Your task to perform on an android device: make emails show in primary in the gmail app Image 0: 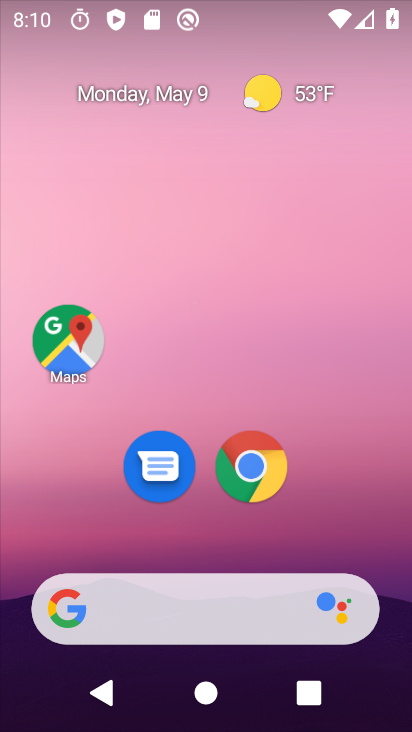
Step 0: drag from (323, 511) to (251, 85)
Your task to perform on an android device: make emails show in primary in the gmail app Image 1: 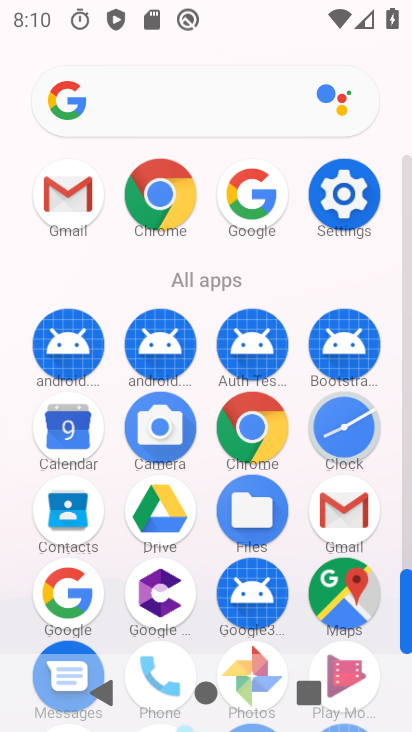
Step 1: click (67, 198)
Your task to perform on an android device: make emails show in primary in the gmail app Image 2: 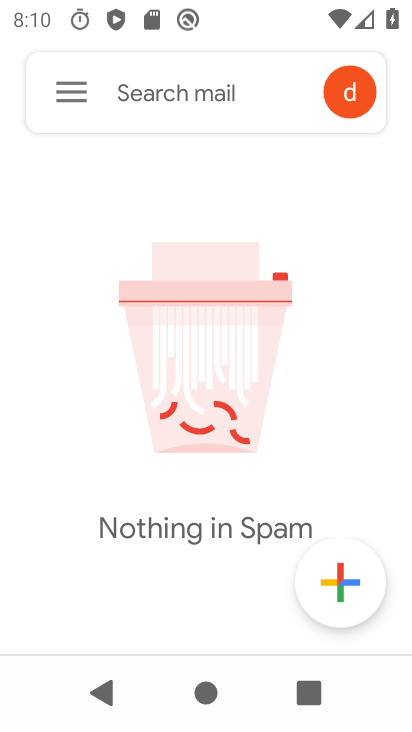
Step 2: click (77, 98)
Your task to perform on an android device: make emails show in primary in the gmail app Image 3: 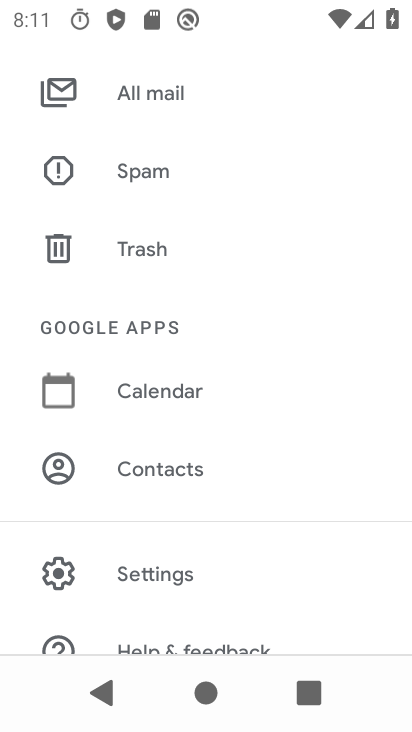
Step 3: click (135, 571)
Your task to perform on an android device: make emails show in primary in the gmail app Image 4: 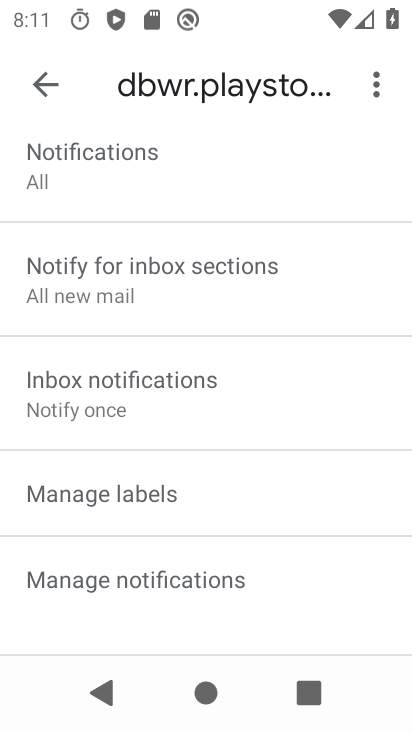
Step 4: drag from (202, 202) to (178, 472)
Your task to perform on an android device: make emails show in primary in the gmail app Image 5: 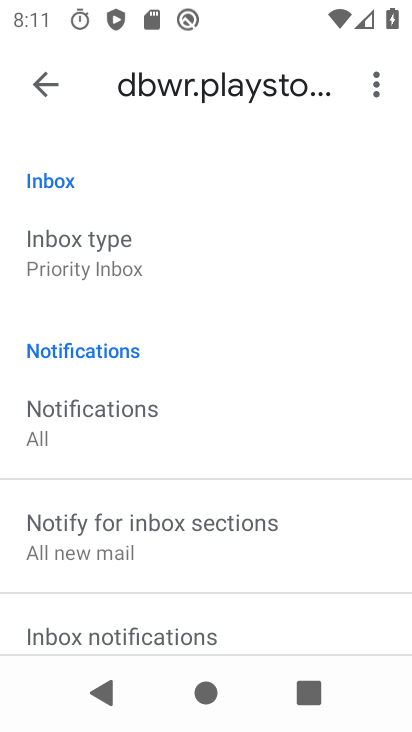
Step 5: drag from (160, 266) to (176, 486)
Your task to perform on an android device: make emails show in primary in the gmail app Image 6: 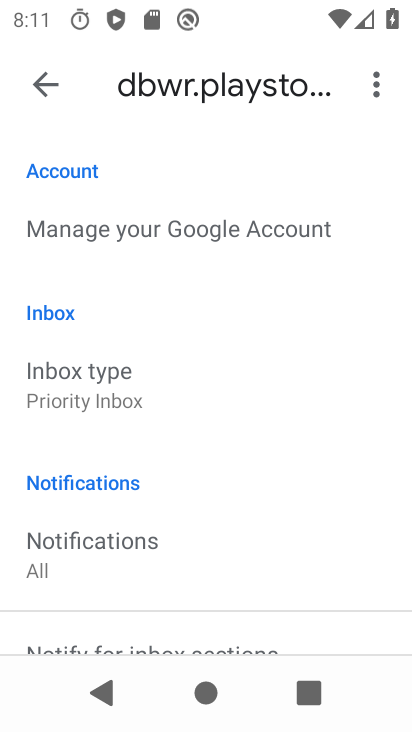
Step 6: click (84, 376)
Your task to perform on an android device: make emails show in primary in the gmail app Image 7: 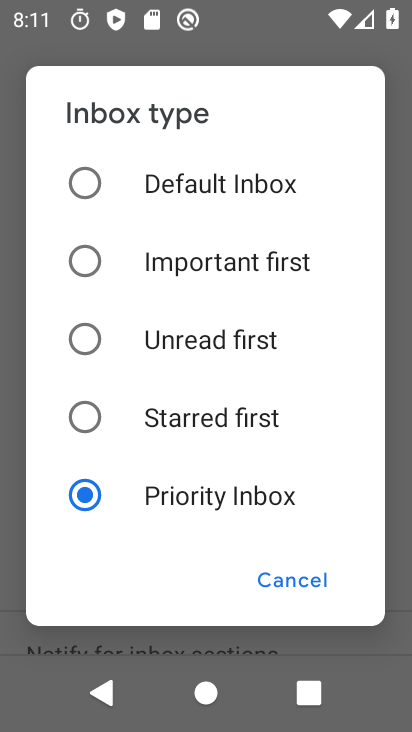
Step 7: click (83, 177)
Your task to perform on an android device: make emails show in primary in the gmail app Image 8: 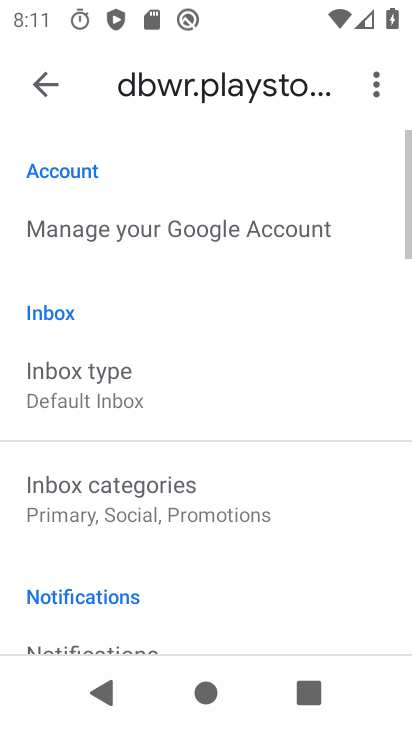
Step 8: drag from (143, 545) to (170, 455)
Your task to perform on an android device: make emails show in primary in the gmail app Image 9: 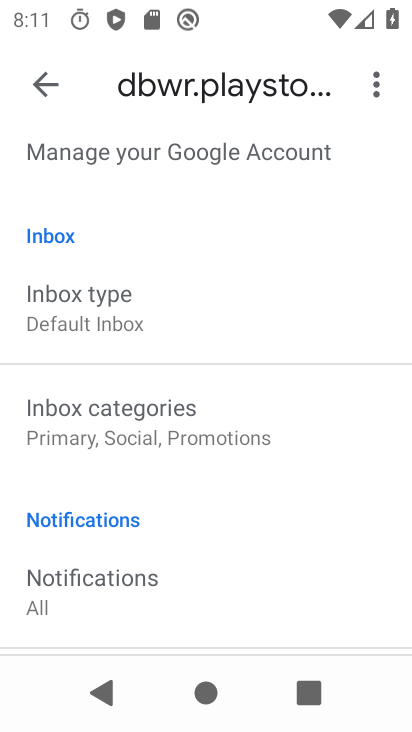
Step 9: click (170, 445)
Your task to perform on an android device: make emails show in primary in the gmail app Image 10: 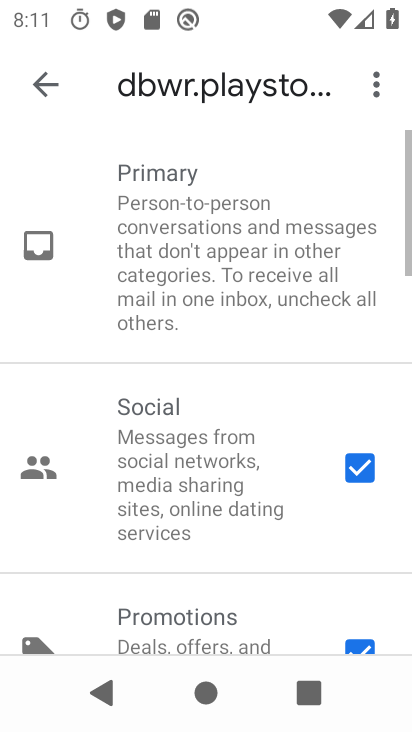
Step 10: click (356, 473)
Your task to perform on an android device: make emails show in primary in the gmail app Image 11: 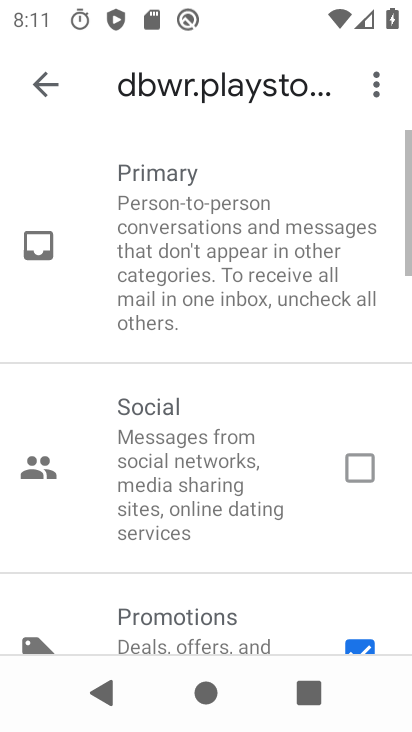
Step 11: drag from (241, 566) to (304, 279)
Your task to perform on an android device: make emails show in primary in the gmail app Image 12: 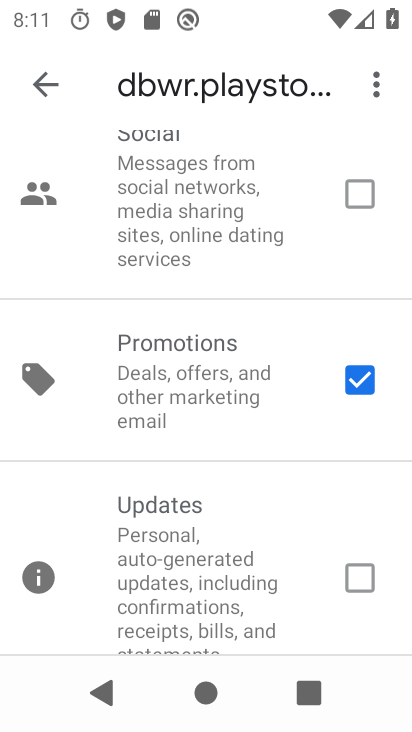
Step 12: click (359, 376)
Your task to perform on an android device: make emails show in primary in the gmail app Image 13: 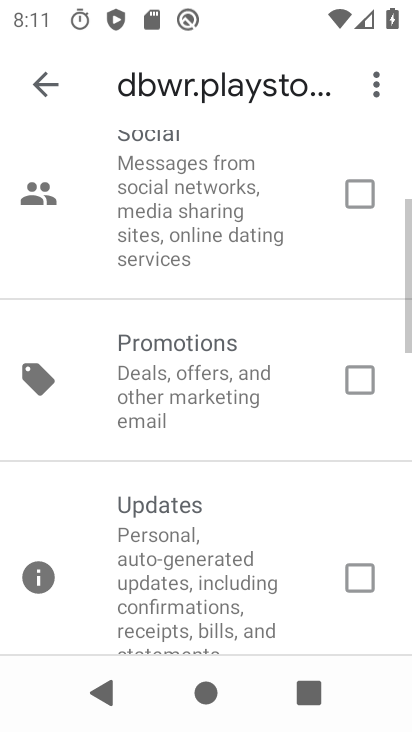
Step 13: task complete